Your task to perform on an android device: toggle pop-ups in chrome Image 0: 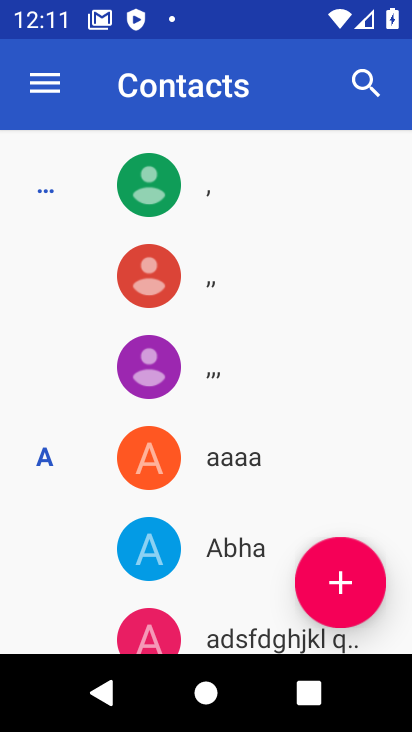
Step 0: press home button
Your task to perform on an android device: toggle pop-ups in chrome Image 1: 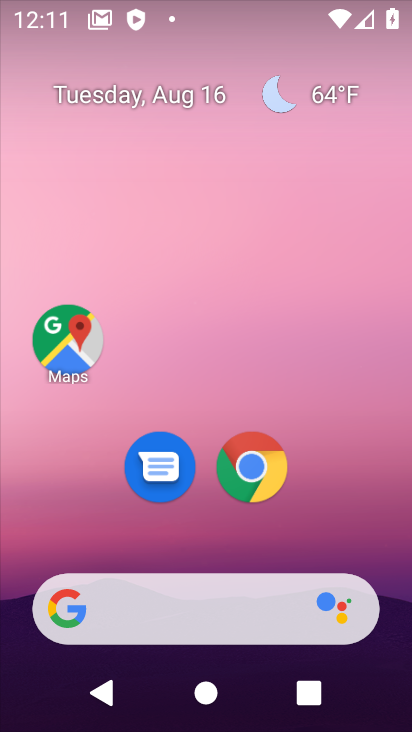
Step 1: drag from (334, 521) to (370, 74)
Your task to perform on an android device: toggle pop-ups in chrome Image 2: 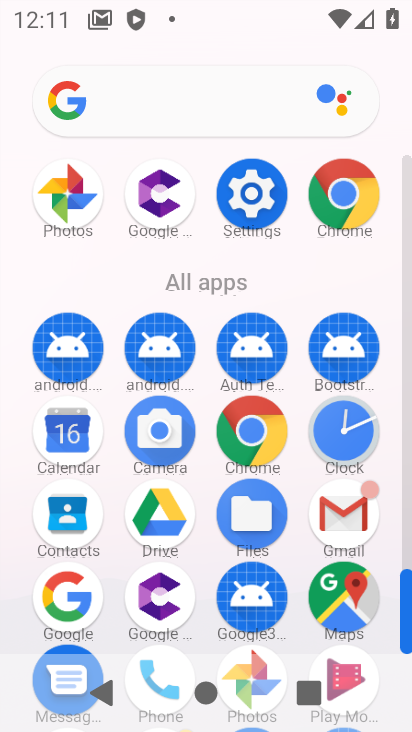
Step 2: click (250, 435)
Your task to perform on an android device: toggle pop-ups in chrome Image 3: 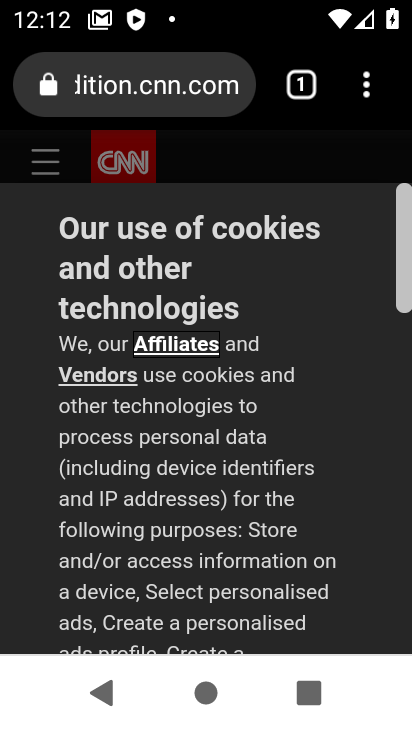
Step 3: click (366, 96)
Your task to perform on an android device: toggle pop-ups in chrome Image 4: 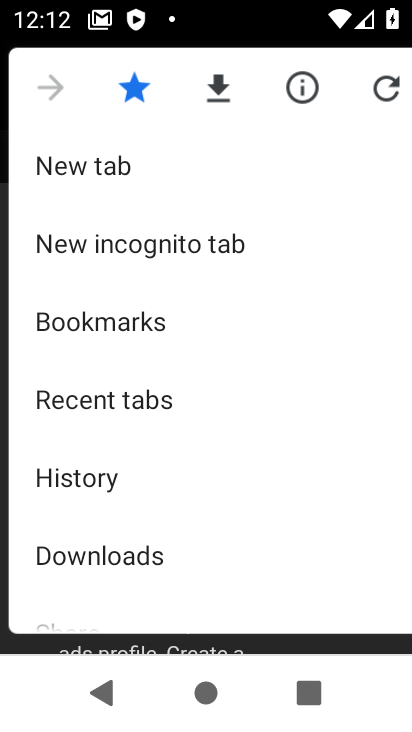
Step 4: drag from (302, 441) to (302, 347)
Your task to perform on an android device: toggle pop-ups in chrome Image 5: 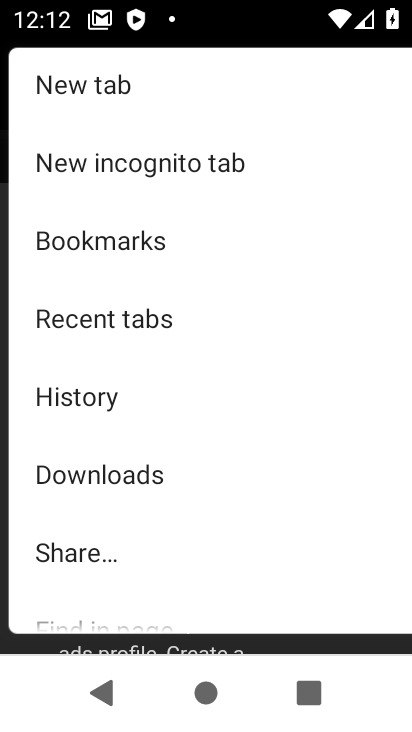
Step 5: drag from (293, 463) to (291, 328)
Your task to perform on an android device: toggle pop-ups in chrome Image 6: 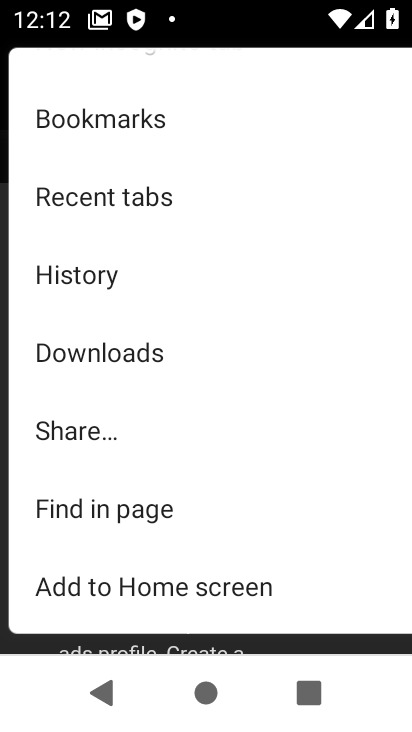
Step 6: drag from (281, 471) to (286, 349)
Your task to perform on an android device: toggle pop-ups in chrome Image 7: 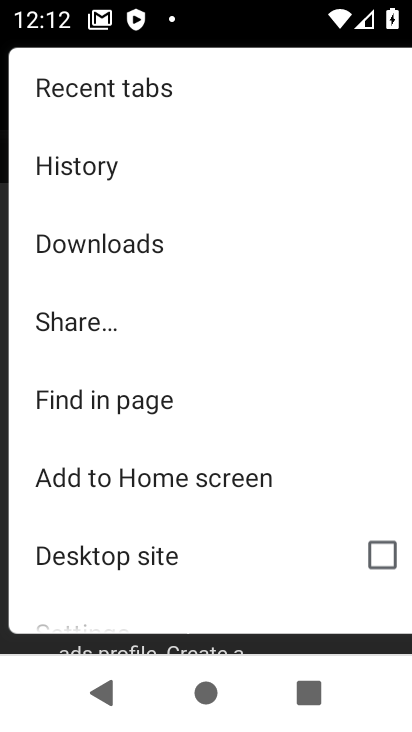
Step 7: drag from (283, 531) to (290, 391)
Your task to perform on an android device: toggle pop-ups in chrome Image 8: 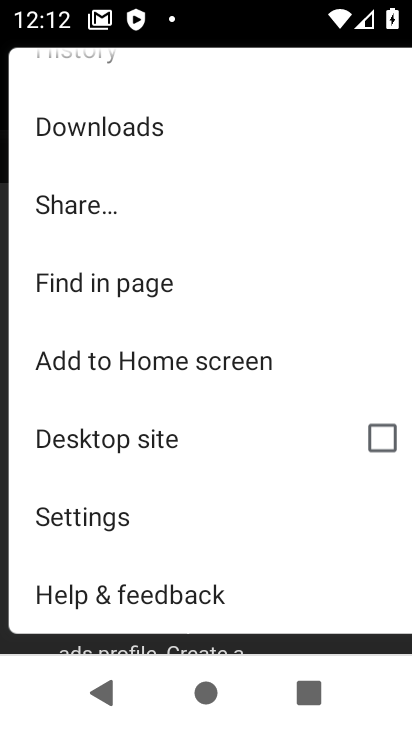
Step 8: click (187, 517)
Your task to perform on an android device: toggle pop-ups in chrome Image 9: 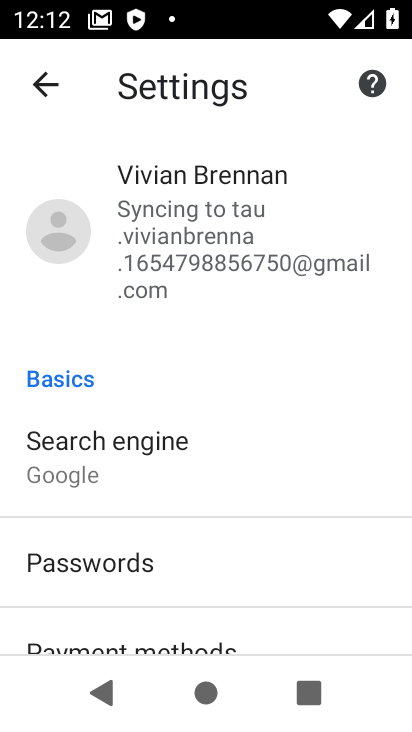
Step 9: drag from (274, 455) to (289, 373)
Your task to perform on an android device: toggle pop-ups in chrome Image 10: 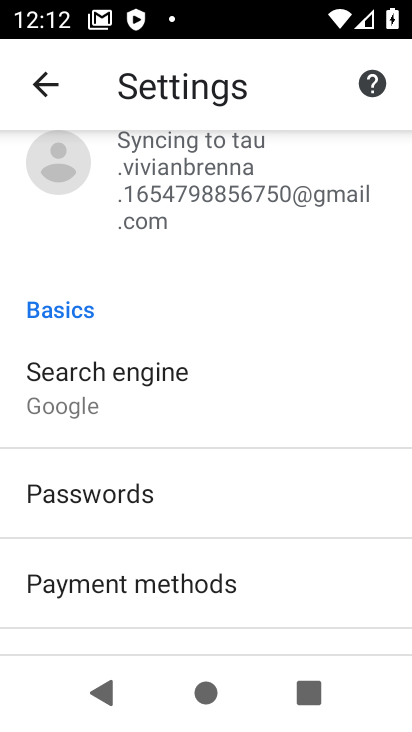
Step 10: drag from (361, 532) to (345, 334)
Your task to perform on an android device: toggle pop-ups in chrome Image 11: 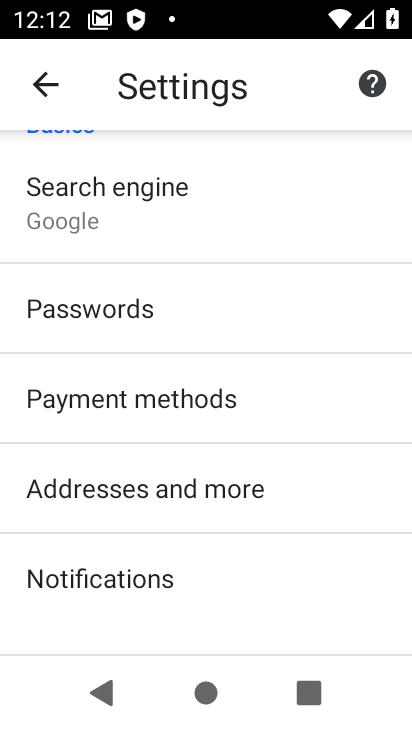
Step 11: drag from (327, 581) to (331, 470)
Your task to perform on an android device: toggle pop-ups in chrome Image 12: 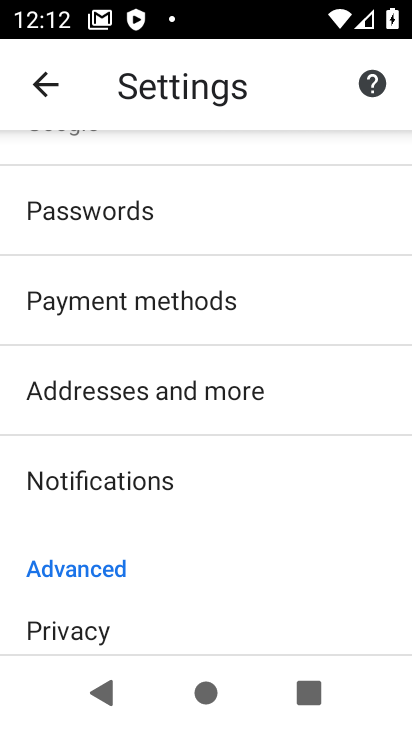
Step 12: drag from (315, 560) to (315, 459)
Your task to perform on an android device: toggle pop-ups in chrome Image 13: 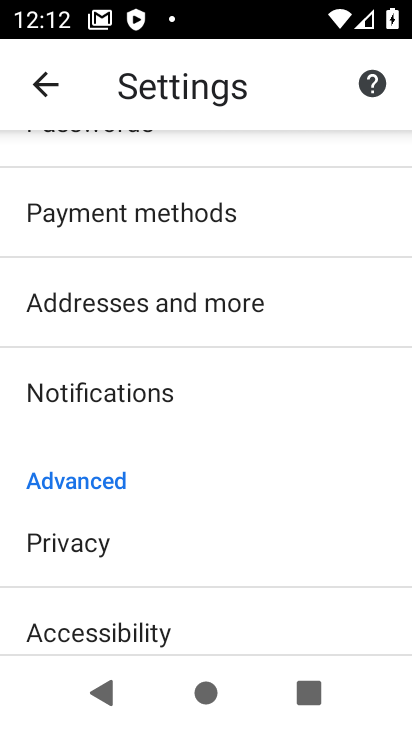
Step 13: drag from (309, 562) to (309, 441)
Your task to perform on an android device: toggle pop-ups in chrome Image 14: 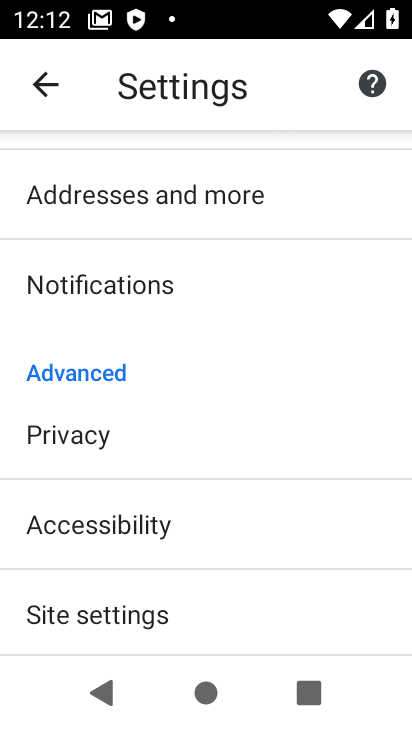
Step 14: drag from (306, 546) to (304, 447)
Your task to perform on an android device: toggle pop-ups in chrome Image 15: 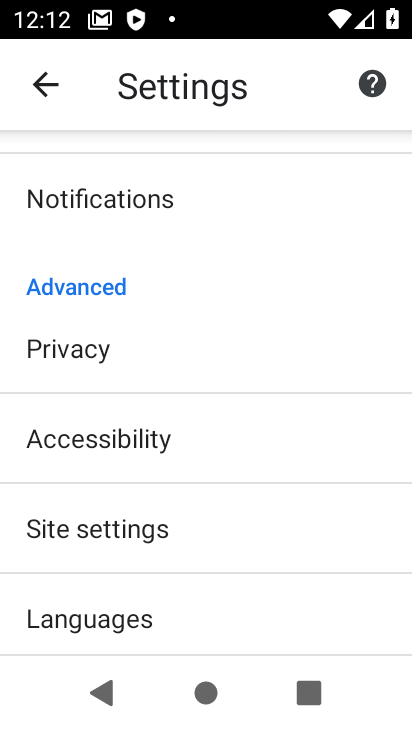
Step 15: click (300, 529)
Your task to perform on an android device: toggle pop-ups in chrome Image 16: 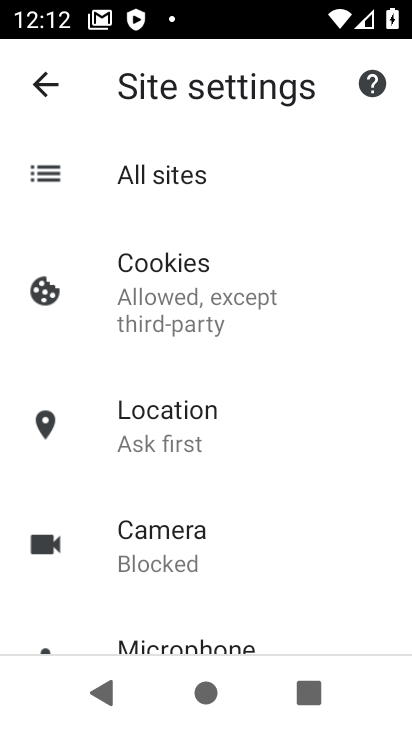
Step 16: drag from (309, 568) to (317, 453)
Your task to perform on an android device: toggle pop-ups in chrome Image 17: 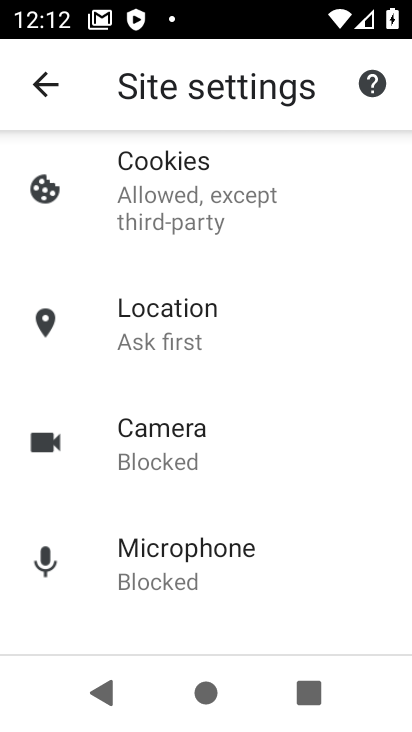
Step 17: drag from (329, 553) to (330, 446)
Your task to perform on an android device: toggle pop-ups in chrome Image 18: 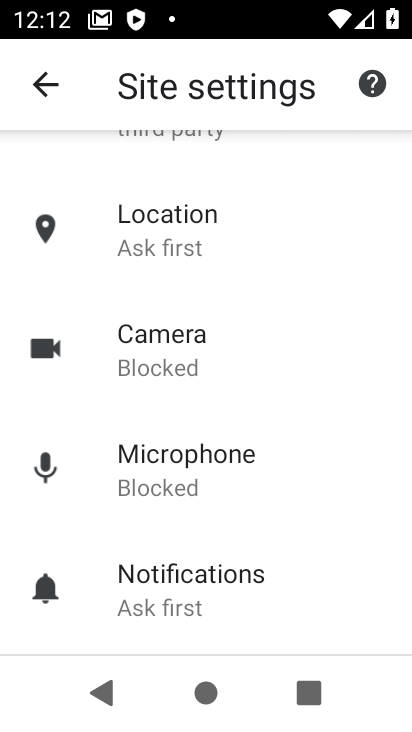
Step 18: drag from (340, 593) to (340, 464)
Your task to perform on an android device: toggle pop-ups in chrome Image 19: 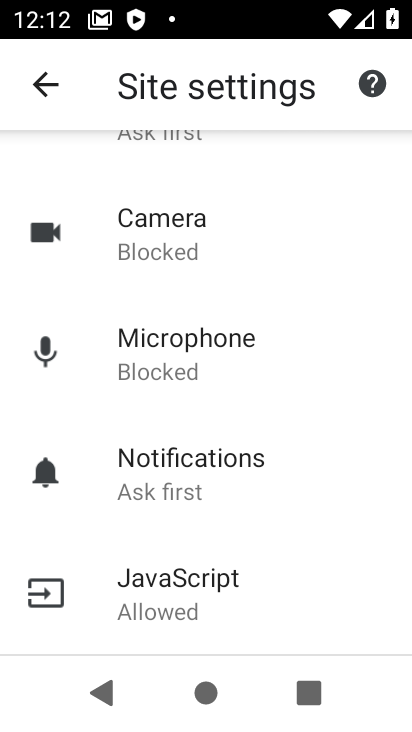
Step 19: drag from (346, 602) to (338, 471)
Your task to perform on an android device: toggle pop-ups in chrome Image 20: 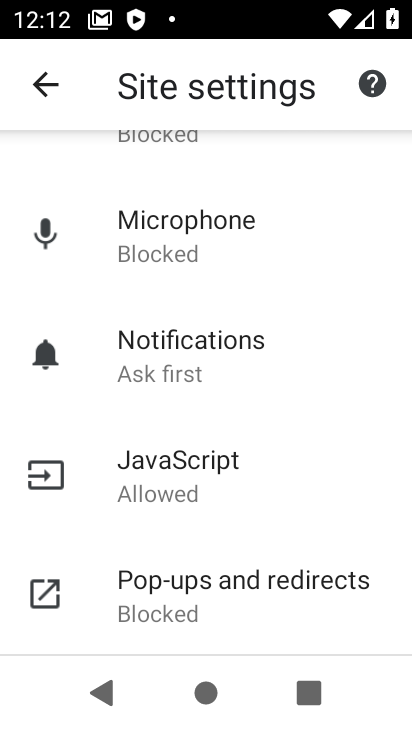
Step 20: drag from (350, 607) to (350, 468)
Your task to perform on an android device: toggle pop-ups in chrome Image 21: 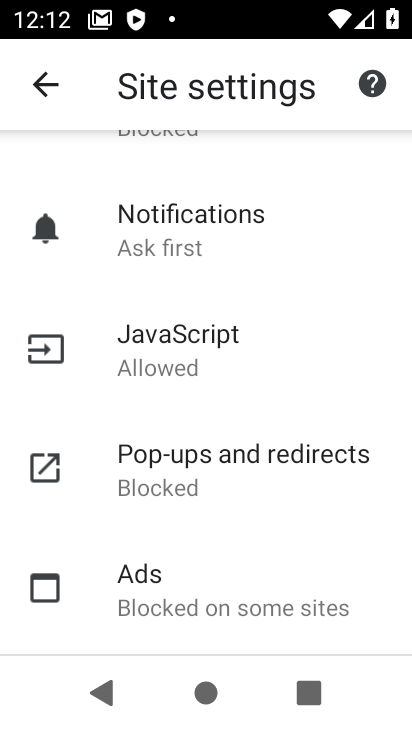
Step 21: click (331, 494)
Your task to perform on an android device: toggle pop-ups in chrome Image 22: 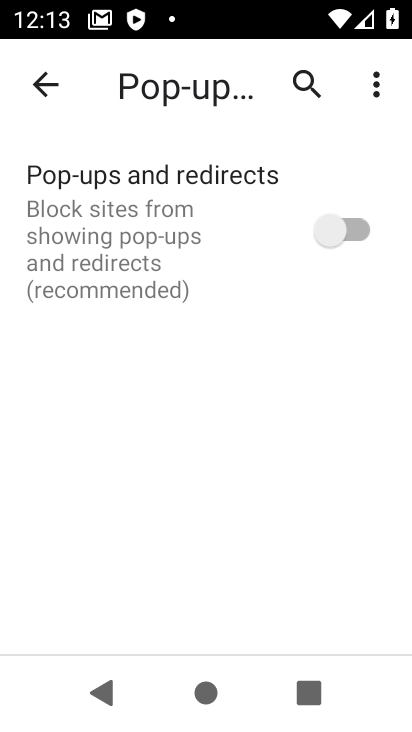
Step 22: click (333, 219)
Your task to perform on an android device: toggle pop-ups in chrome Image 23: 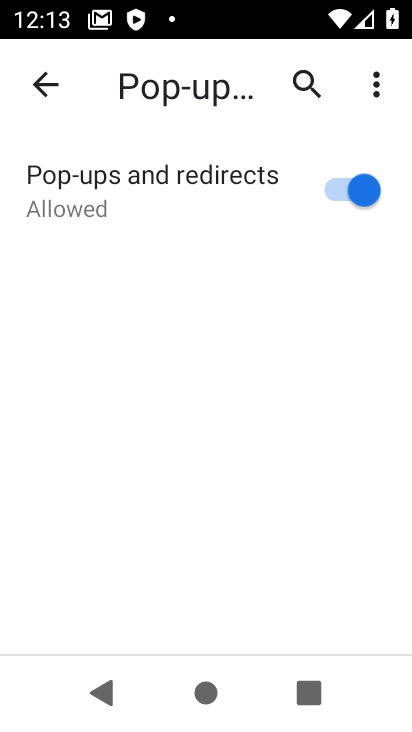
Step 23: task complete